Your task to perform on an android device: turn on the 12-hour format for clock Image 0: 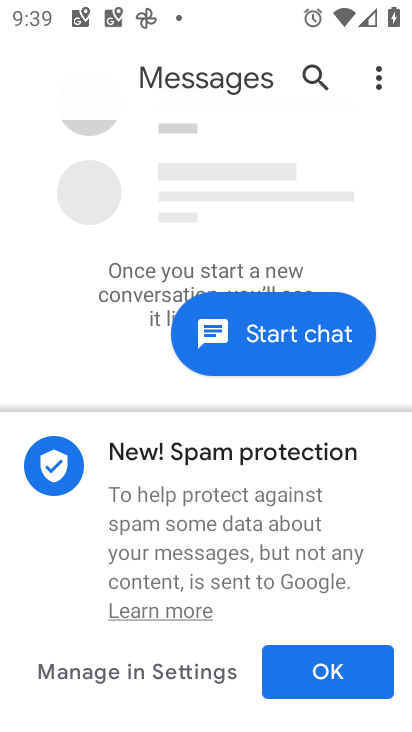
Step 0: press home button
Your task to perform on an android device: turn on the 12-hour format for clock Image 1: 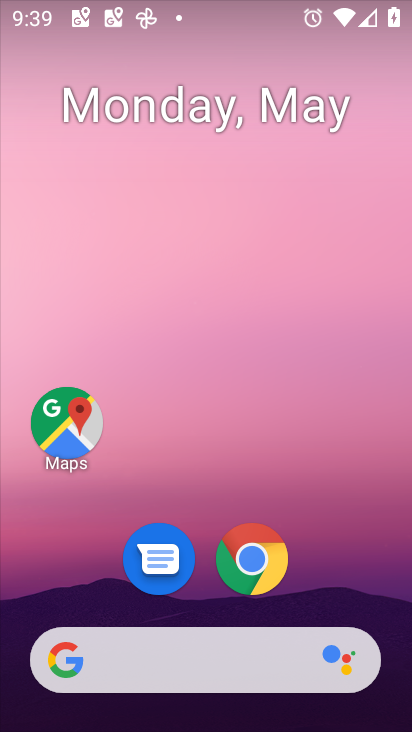
Step 1: drag from (403, 648) to (308, 93)
Your task to perform on an android device: turn on the 12-hour format for clock Image 2: 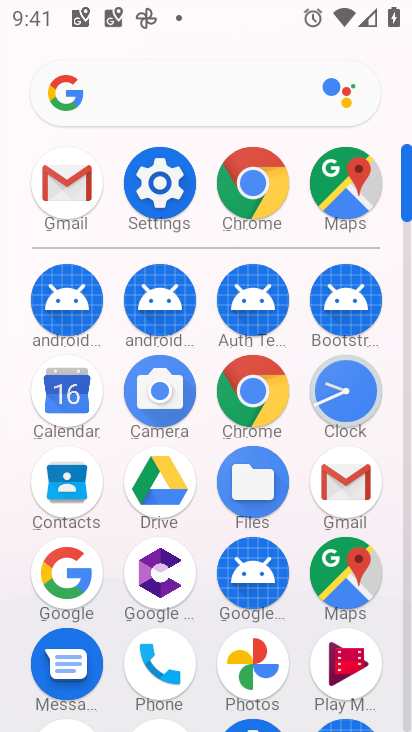
Step 2: click (307, 402)
Your task to perform on an android device: turn on the 12-hour format for clock Image 3: 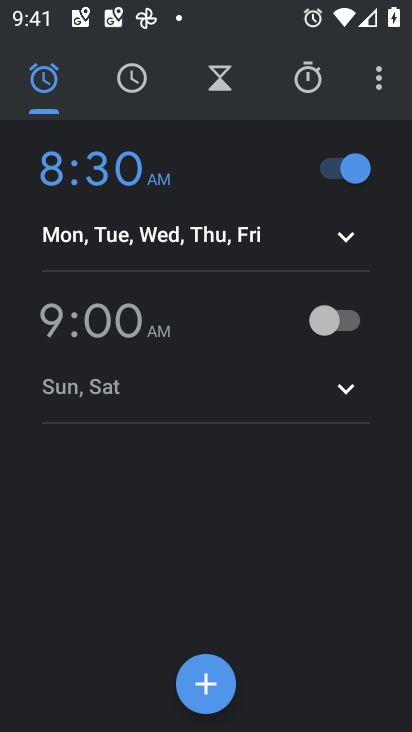
Step 3: click (380, 72)
Your task to perform on an android device: turn on the 12-hour format for clock Image 4: 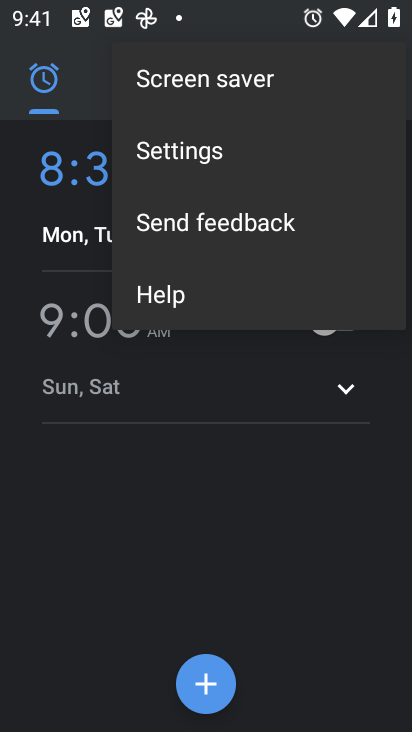
Step 4: click (238, 161)
Your task to perform on an android device: turn on the 12-hour format for clock Image 5: 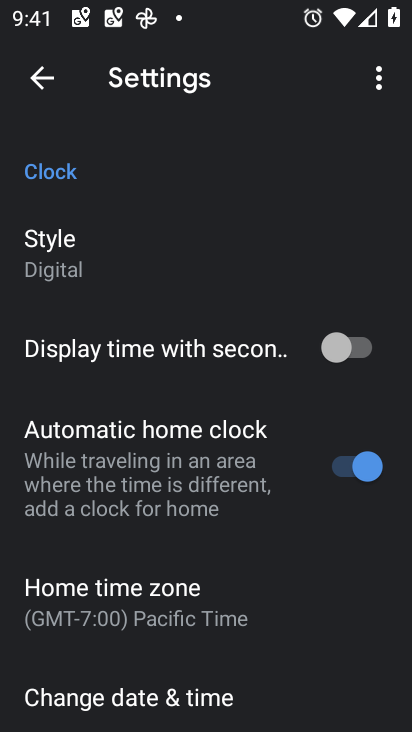
Step 5: click (205, 714)
Your task to perform on an android device: turn on the 12-hour format for clock Image 6: 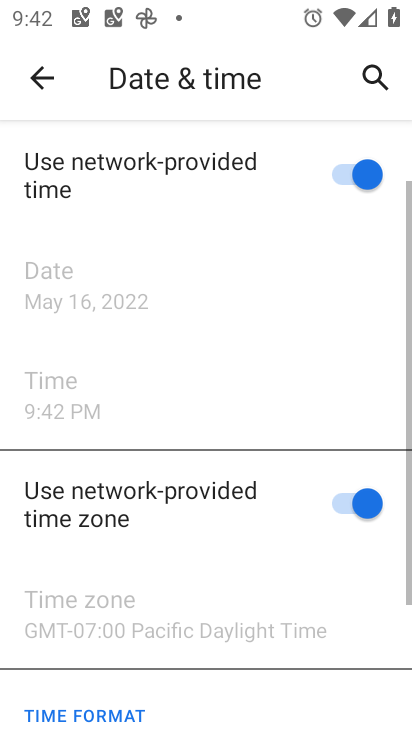
Step 6: task complete